Your task to perform on an android device: turn on the 12-hour format for clock Image 0: 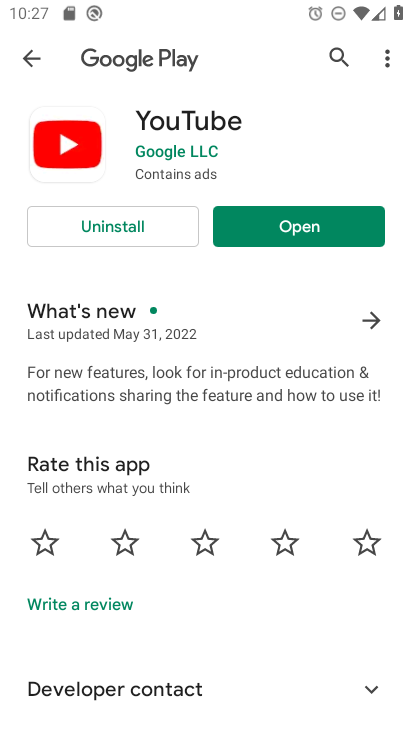
Step 0: press home button
Your task to perform on an android device: turn on the 12-hour format for clock Image 1: 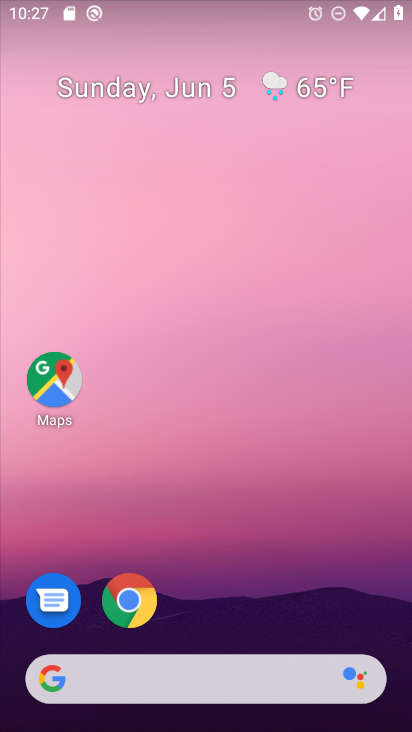
Step 1: drag from (377, 603) to (204, 36)
Your task to perform on an android device: turn on the 12-hour format for clock Image 2: 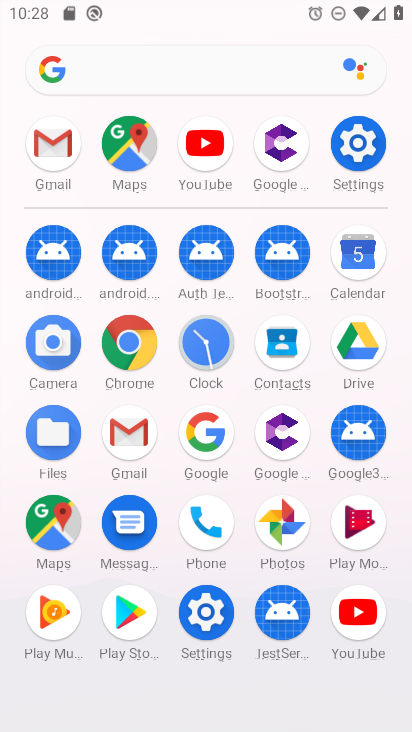
Step 2: click (219, 338)
Your task to perform on an android device: turn on the 12-hour format for clock Image 3: 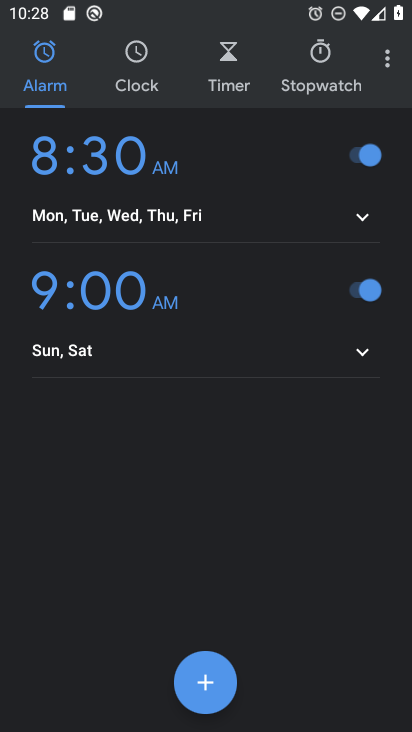
Step 3: click (383, 52)
Your task to perform on an android device: turn on the 12-hour format for clock Image 4: 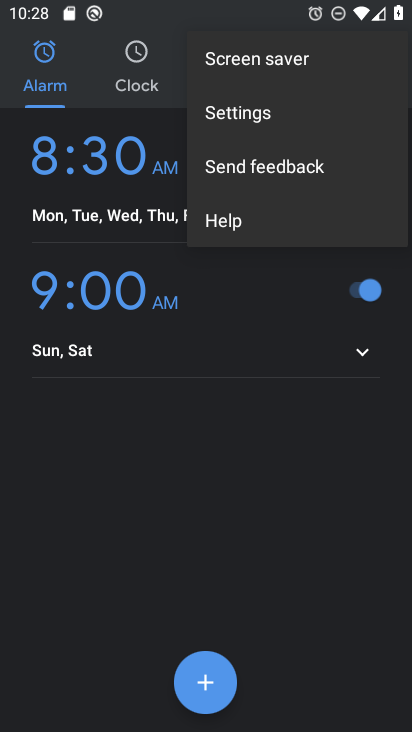
Step 4: click (299, 119)
Your task to perform on an android device: turn on the 12-hour format for clock Image 5: 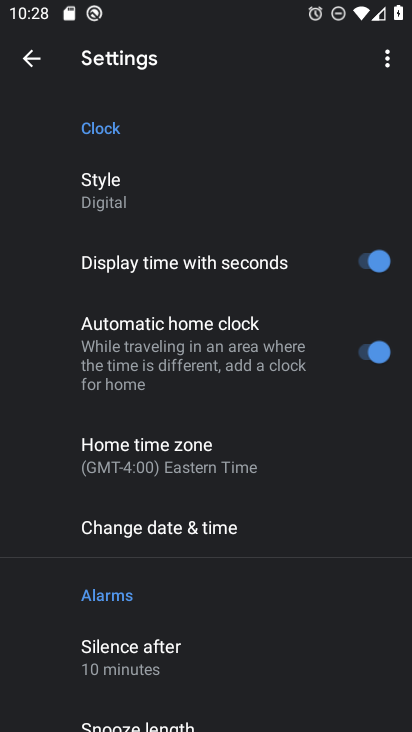
Step 5: click (234, 538)
Your task to perform on an android device: turn on the 12-hour format for clock Image 6: 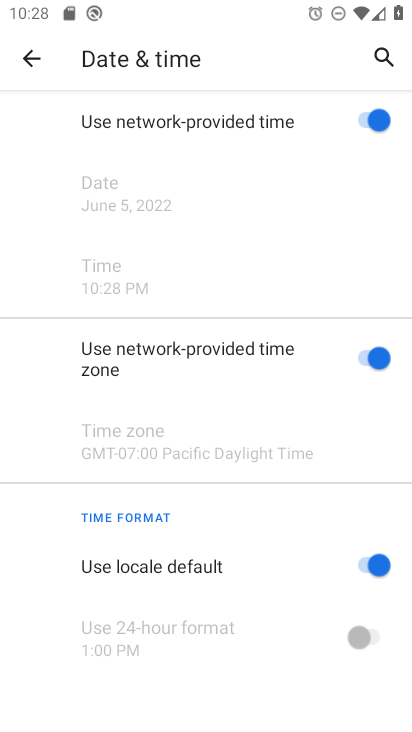
Step 6: task complete